Your task to perform on an android device: check storage Image 0: 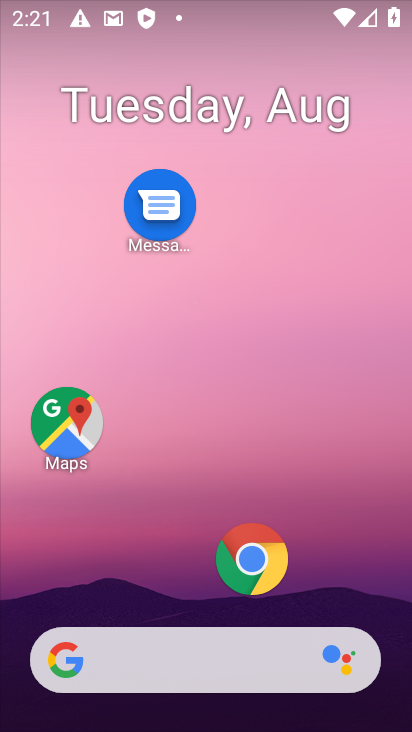
Step 0: drag from (192, 609) to (192, 199)
Your task to perform on an android device: check storage Image 1: 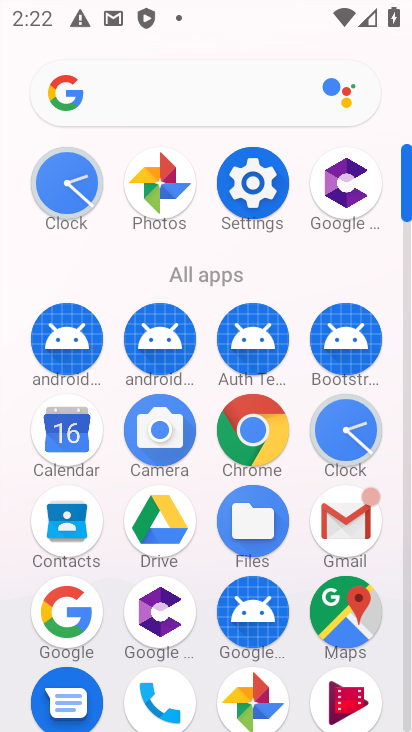
Step 1: click (254, 181)
Your task to perform on an android device: check storage Image 2: 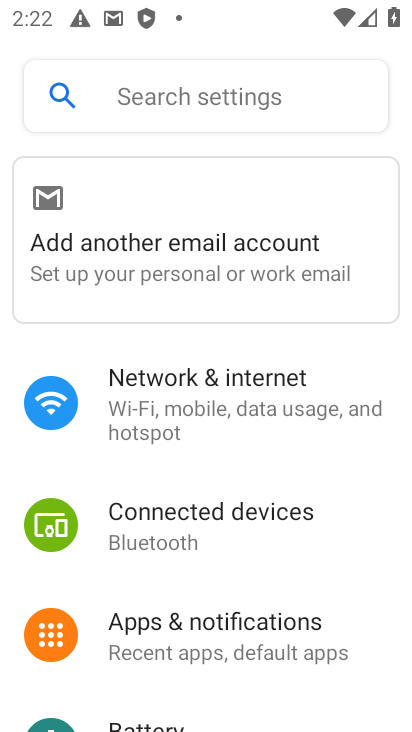
Step 2: drag from (234, 566) to (227, 263)
Your task to perform on an android device: check storage Image 3: 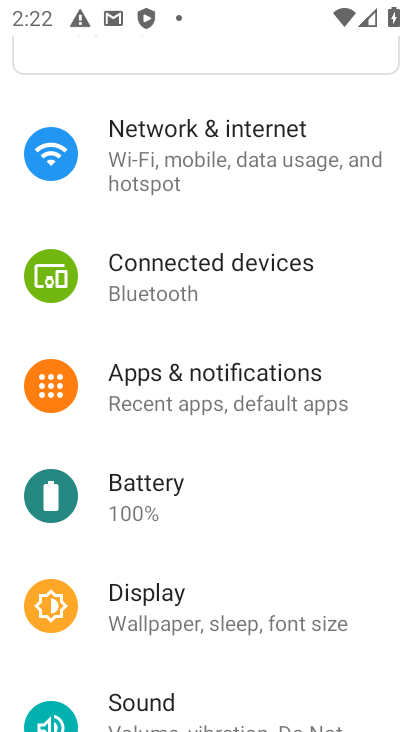
Step 3: drag from (224, 674) to (209, 308)
Your task to perform on an android device: check storage Image 4: 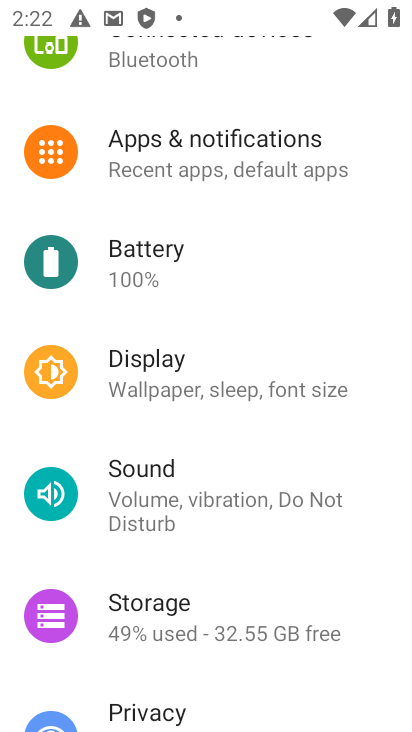
Step 4: click (152, 600)
Your task to perform on an android device: check storage Image 5: 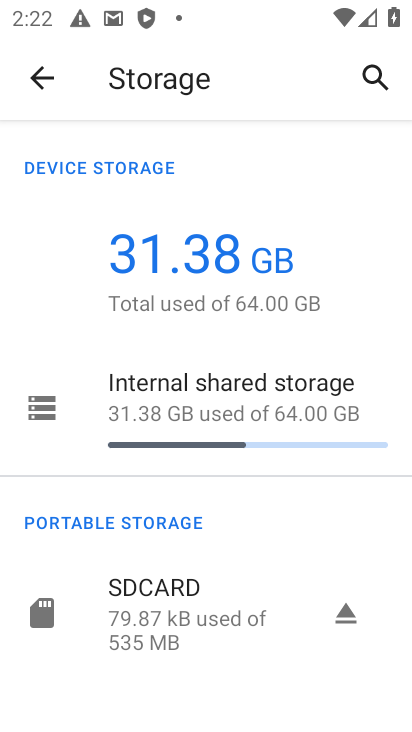
Step 5: task complete